Your task to perform on an android device: check data usage Image 0: 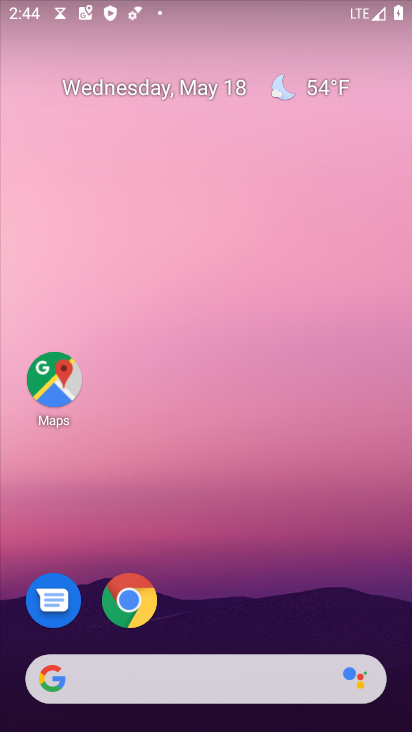
Step 0: press home button
Your task to perform on an android device: check data usage Image 1: 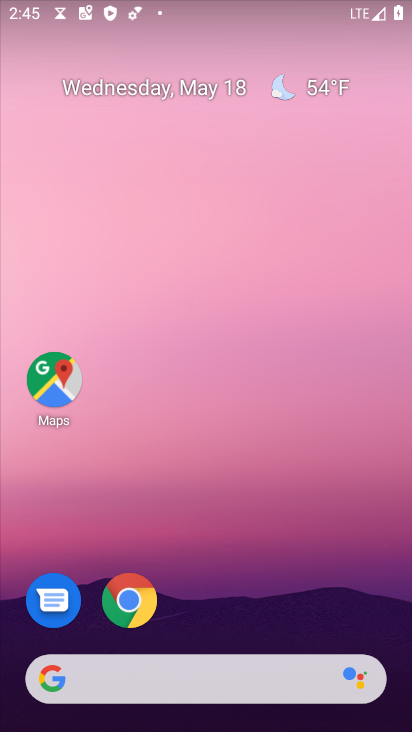
Step 1: drag from (145, 682) to (299, 246)
Your task to perform on an android device: check data usage Image 2: 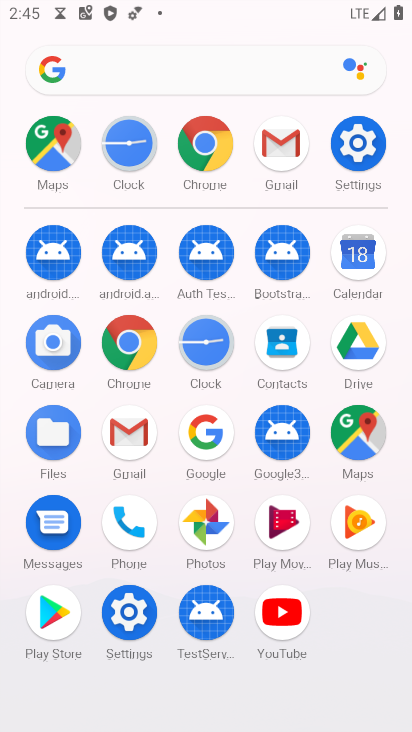
Step 2: click (356, 149)
Your task to perform on an android device: check data usage Image 3: 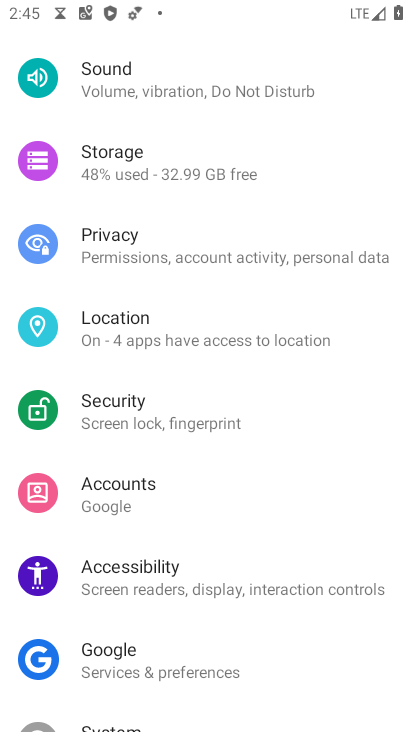
Step 3: drag from (327, 107) to (178, 574)
Your task to perform on an android device: check data usage Image 4: 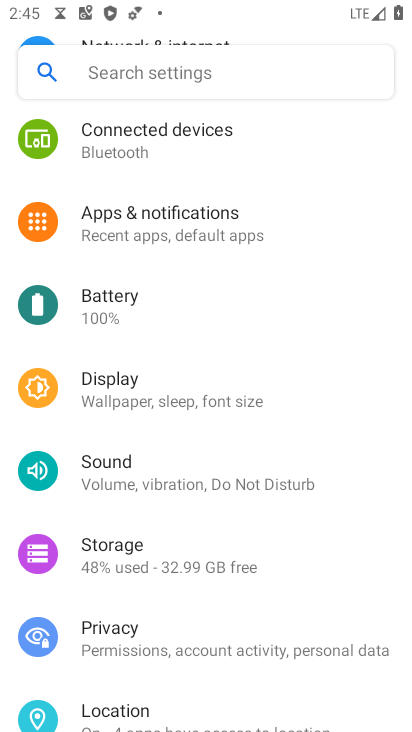
Step 4: drag from (259, 378) to (185, 588)
Your task to perform on an android device: check data usage Image 5: 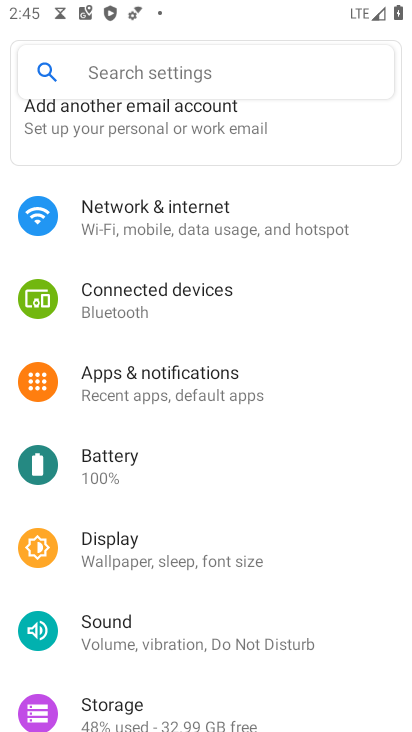
Step 5: click (206, 234)
Your task to perform on an android device: check data usage Image 6: 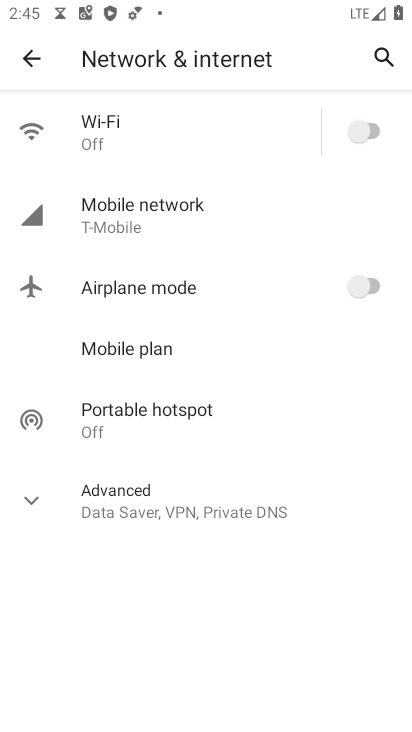
Step 6: click (124, 137)
Your task to perform on an android device: check data usage Image 7: 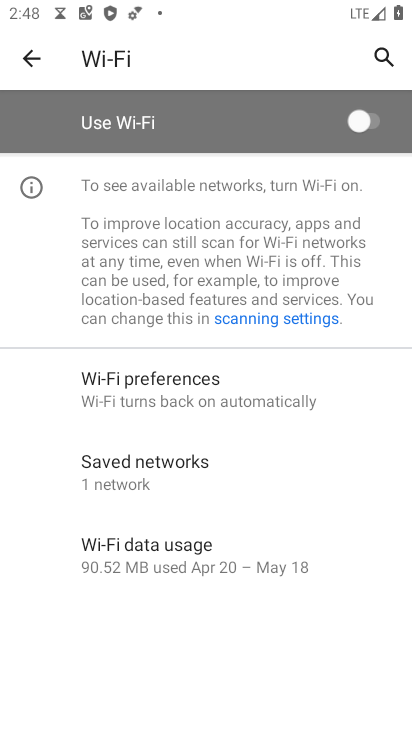
Step 7: task complete